Your task to perform on an android device: create a new album in the google photos Image 0: 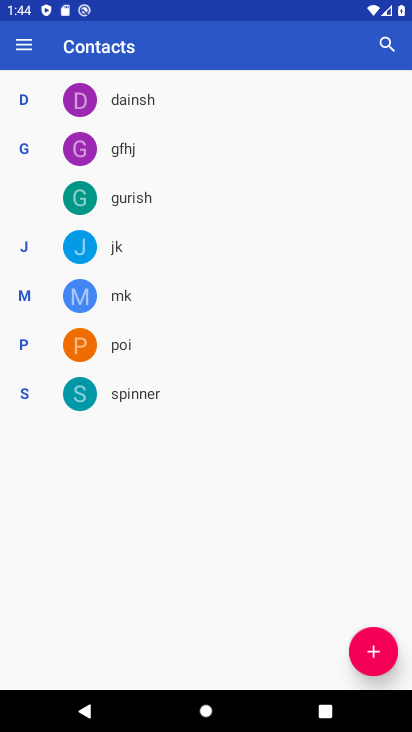
Step 0: press home button
Your task to perform on an android device: create a new album in the google photos Image 1: 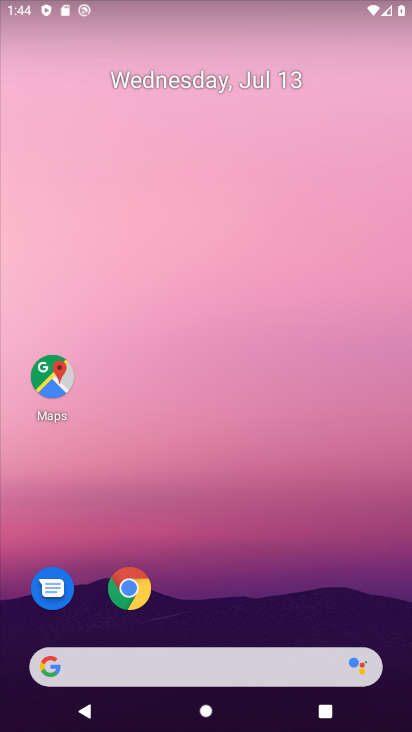
Step 1: drag from (197, 655) to (143, 11)
Your task to perform on an android device: create a new album in the google photos Image 2: 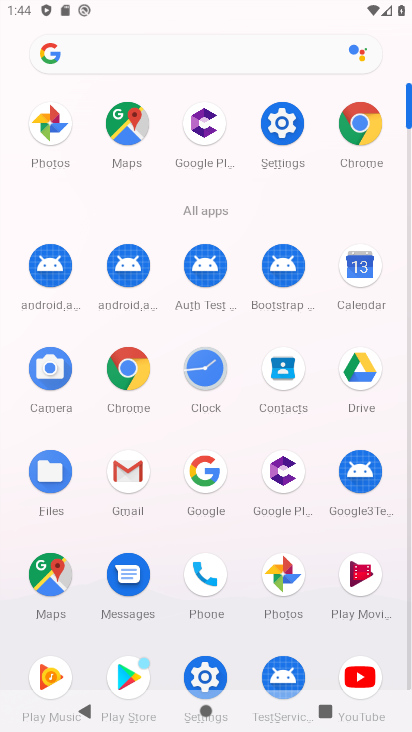
Step 2: click (277, 572)
Your task to perform on an android device: create a new album in the google photos Image 3: 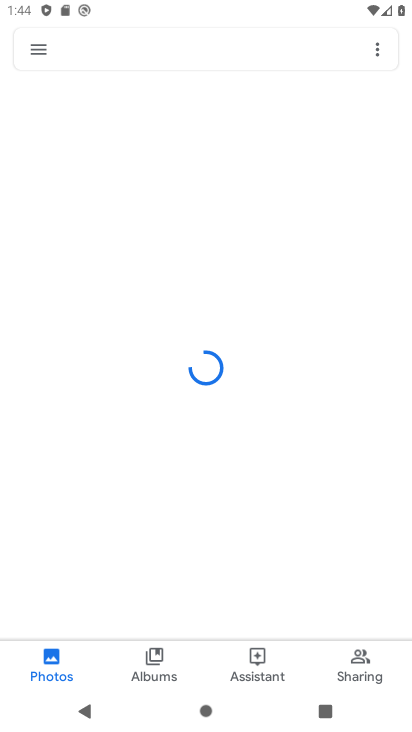
Step 3: click (159, 663)
Your task to perform on an android device: create a new album in the google photos Image 4: 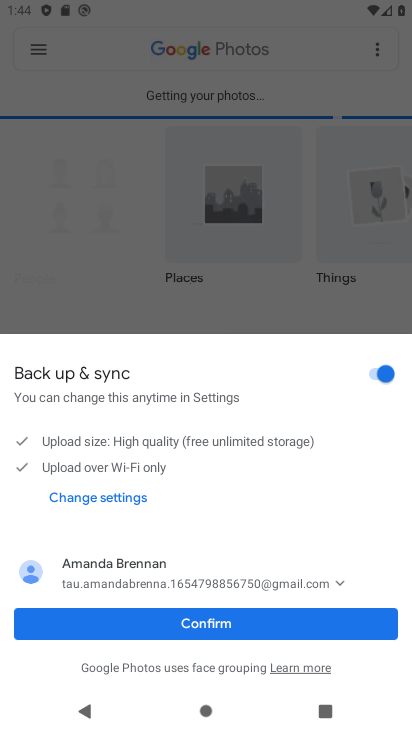
Step 4: click (206, 625)
Your task to perform on an android device: create a new album in the google photos Image 5: 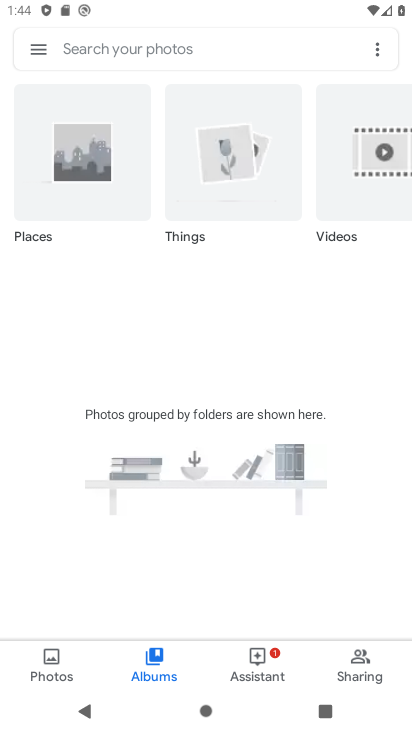
Step 5: click (377, 48)
Your task to perform on an android device: create a new album in the google photos Image 6: 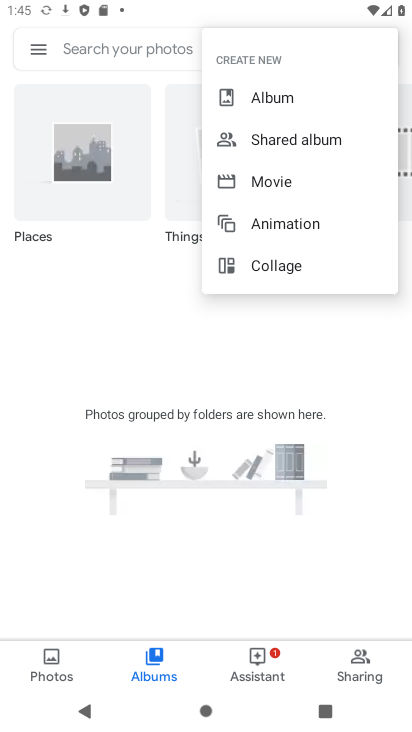
Step 6: click (279, 93)
Your task to perform on an android device: create a new album in the google photos Image 7: 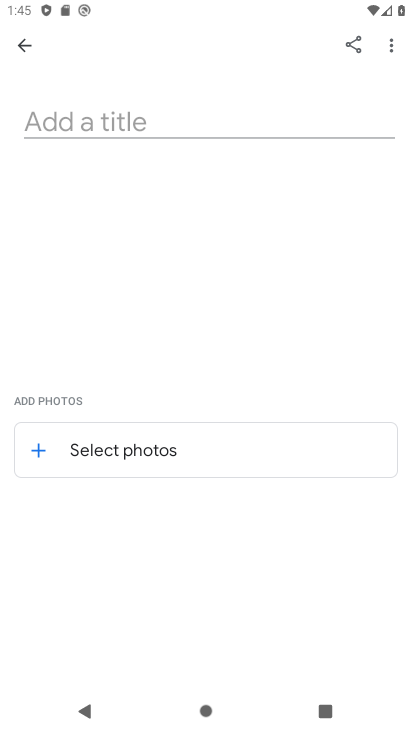
Step 7: task complete